Your task to perform on an android device: Go to Android settings Image 0: 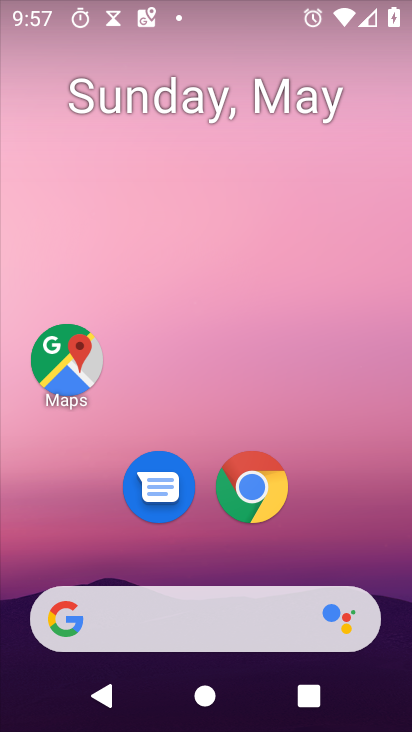
Step 0: drag from (386, 512) to (362, 2)
Your task to perform on an android device: Go to Android settings Image 1: 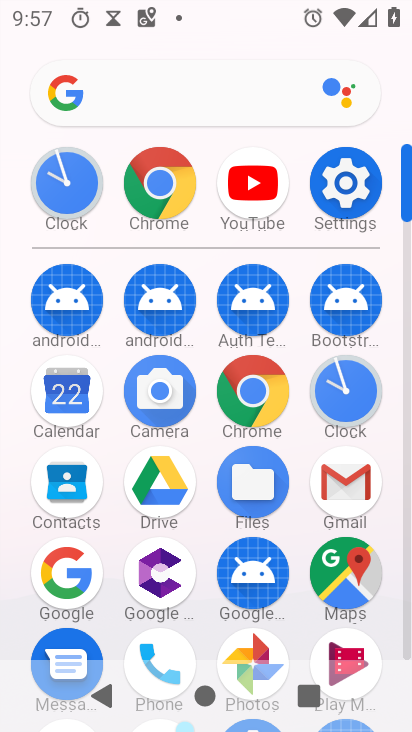
Step 1: click (362, 193)
Your task to perform on an android device: Go to Android settings Image 2: 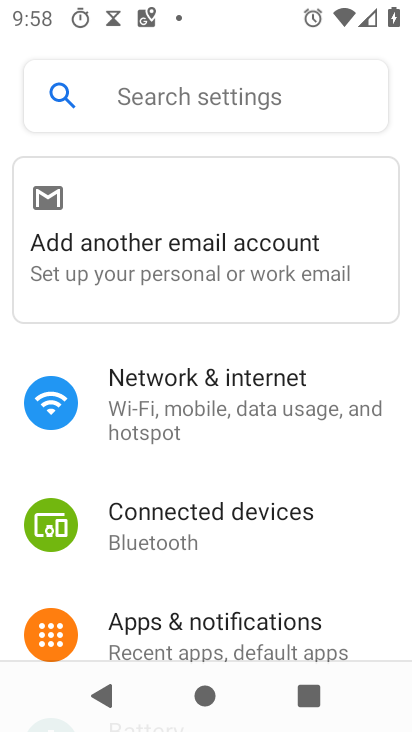
Step 2: task complete